Your task to perform on an android device: change the clock display to digital Image 0: 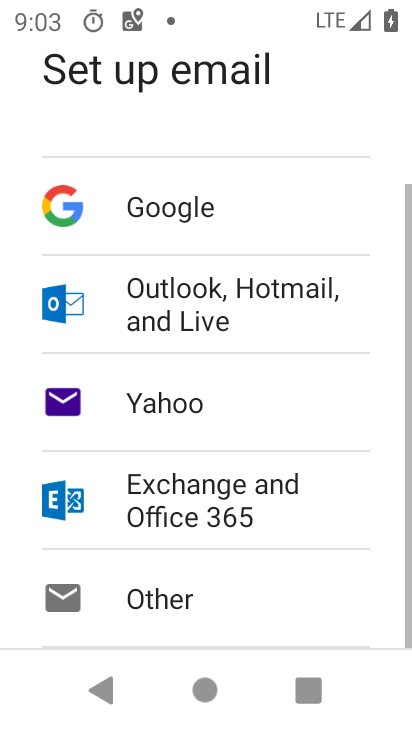
Step 0: drag from (164, 600) to (226, 246)
Your task to perform on an android device: change the clock display to digital Image 1: 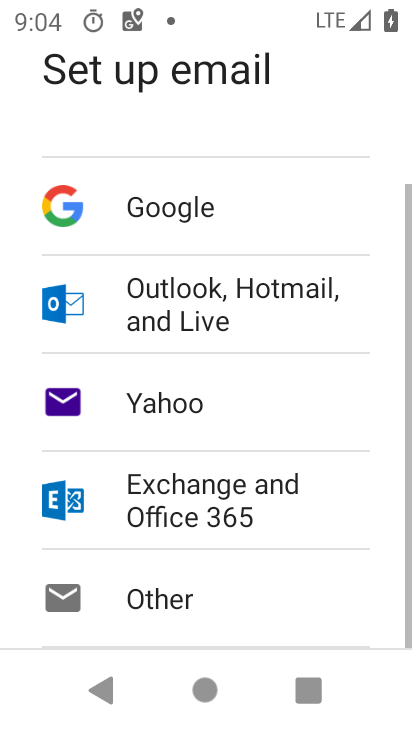
Step 1: drag from (205, 581) to (263, 269)
Your task to perform on an android device: change the clock display to digital Image 2: 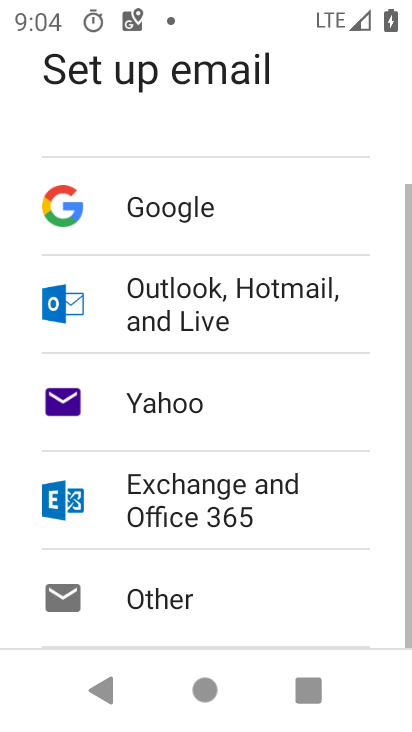
Step 2: drag from (203, 609) to (260, 457)
Your task to perform on an android device: change the clock display to digital Image 3: 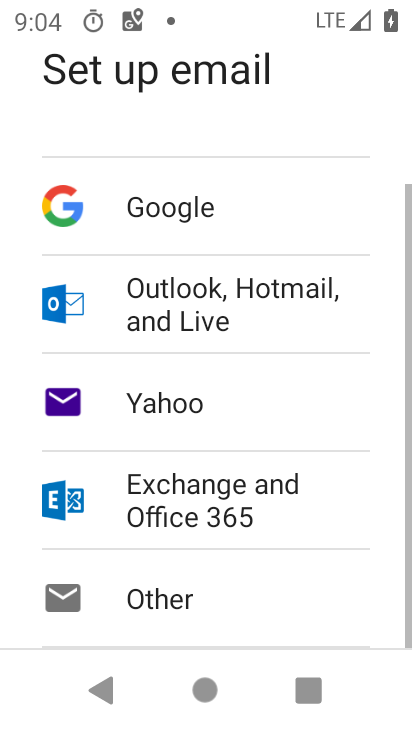
Step 3: press home button
Your task to perform on an android device: change the clock display to digital Image 4: 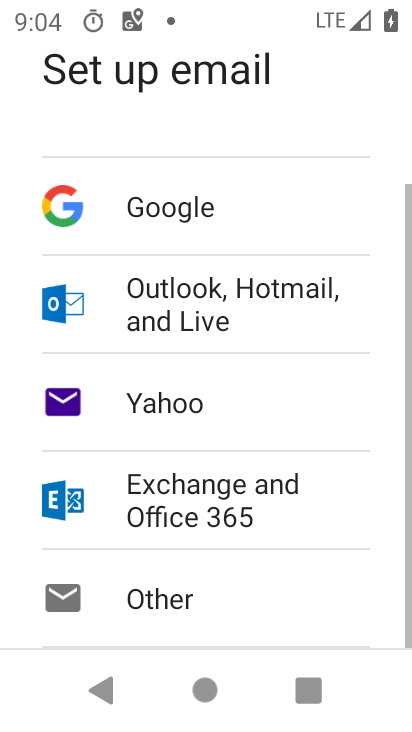
Step 4: press home button
Your task to perform on an android device: change the clock display to digital Image 5: 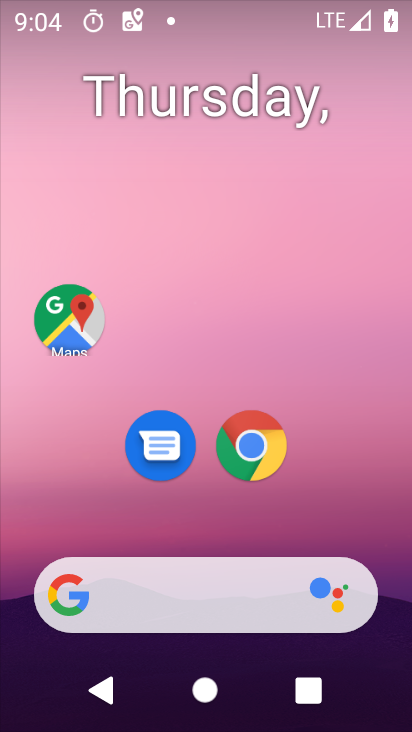
Step 5: drag from (231, 542) to (248, 188)
Your task to perform on an android device: change the clock display to digital Image 6: 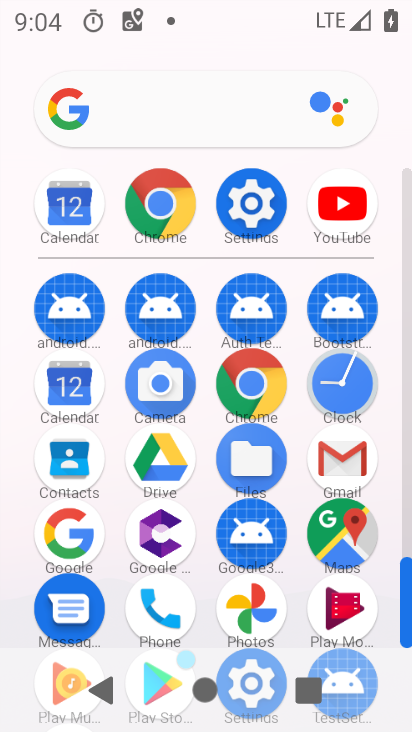
Step 6: drag from (201, 627) to (196, 242)
Your task to perform on an android device: change the clock display to digital Image 7: 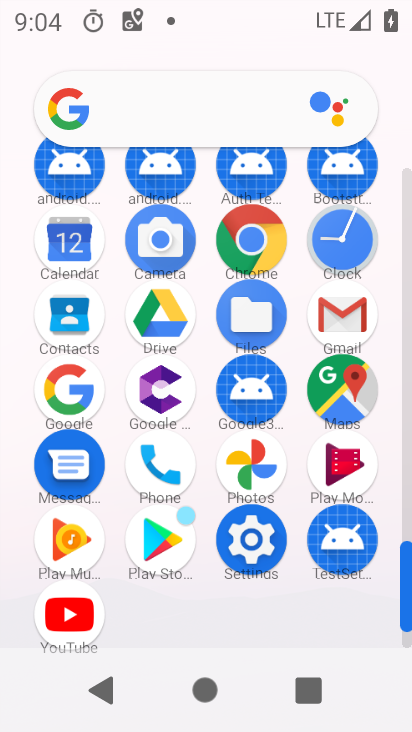
Step 7: click (336, 234)
Your task to perform on an android device: change the clock display to digital Image 8: 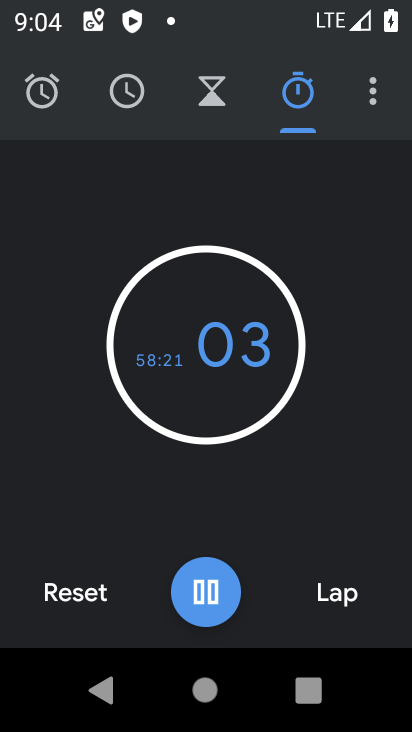
Step 8: click (376, 99)
Your task to perform on an android device: change the clock display to digital Image 9: 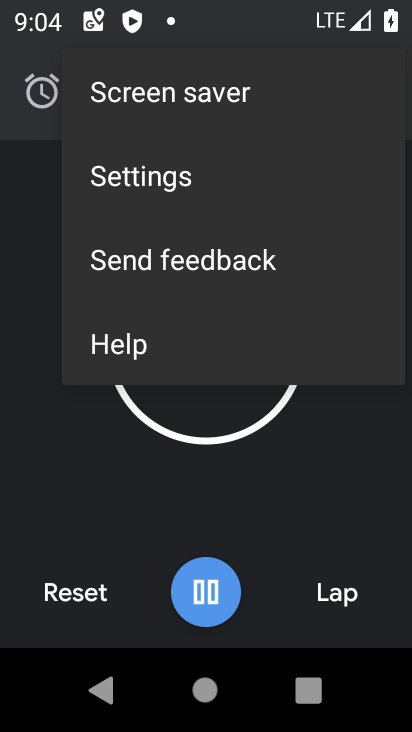
Step 9: click (201, 185)
Your task to perform on an android device: change the clock display to digital Image 10: 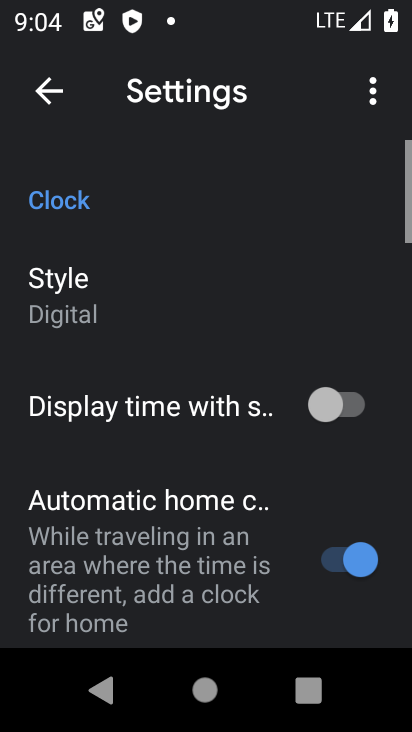
Step 10: click (86, 273)
Your task to perform on an android device: change the clock display to digital Image 11: 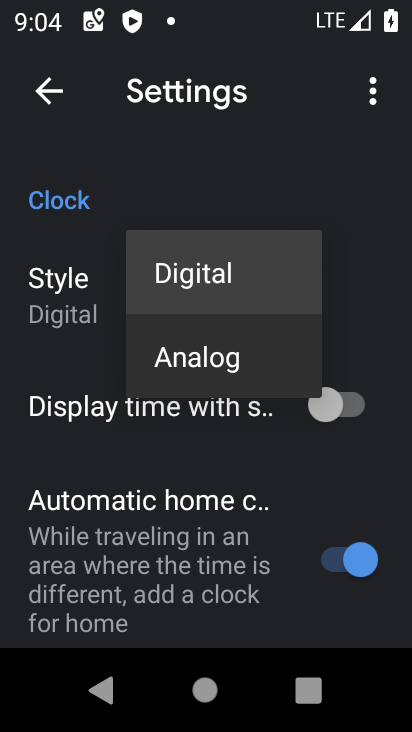
Step 11: click (167, 272)
Your task to perform on an android device: change the clock display to digital Image 12: 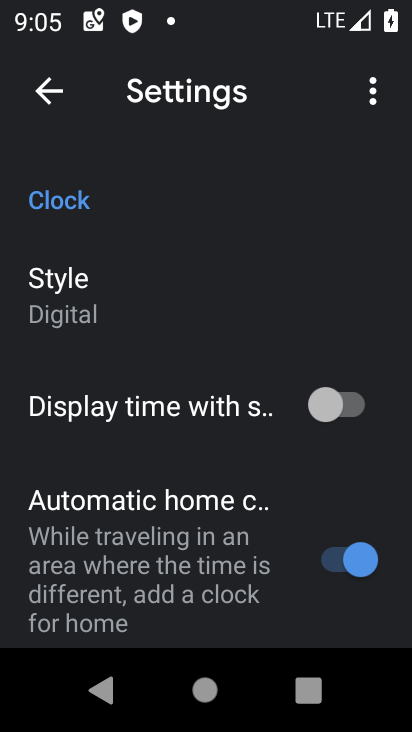
Step 12: drag from (234, 554) to (341, 78)
Your task to perform on an android device: change the clock display to digital Image 13: 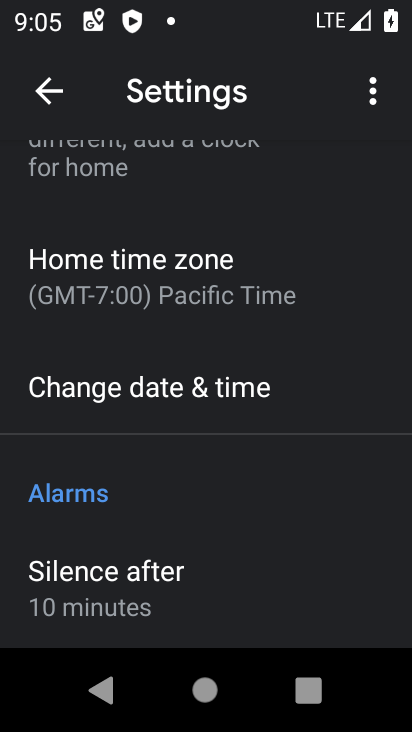
Step 13: drag from (204, 318) to (233, 636)
Your task to perform on an android device: change the clock display to digital Image 14: 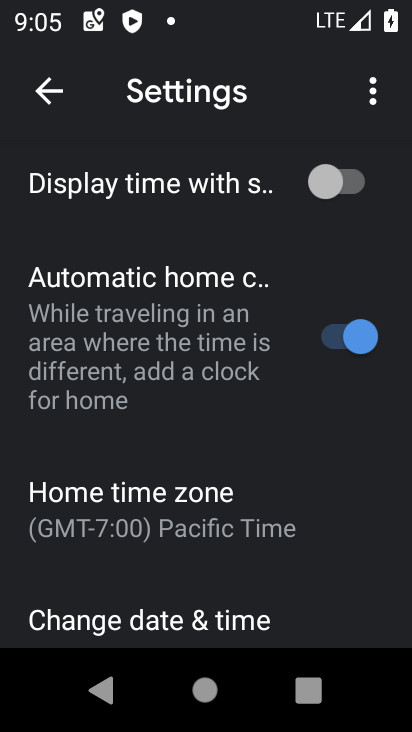
Step 14: drag from (227, 292) to (404, 667)
Your task to perform on an android device: change the clock display to digital Image 15: 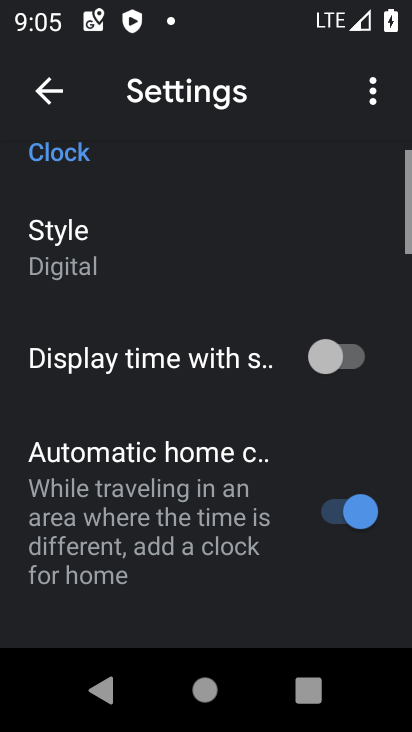
Step 15: drag from (188, 327) to (230, 615)
Your task to perform on an android device: change the clock display to digital Image 16: 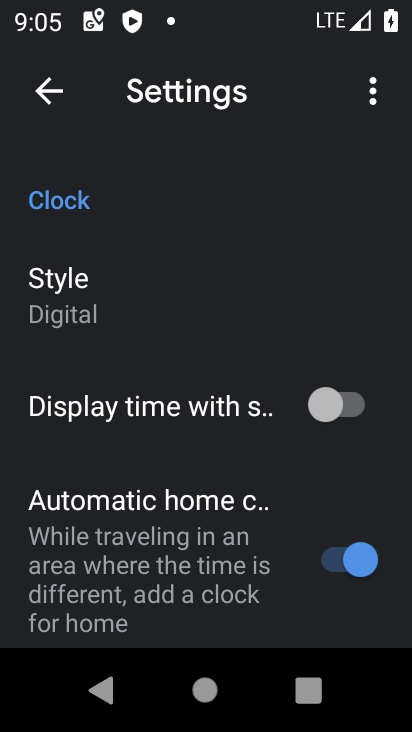
Step 16: drag from (206, 579) to (321, 210)
Your task to perform on an android device: change the clock display to digital Image 17: 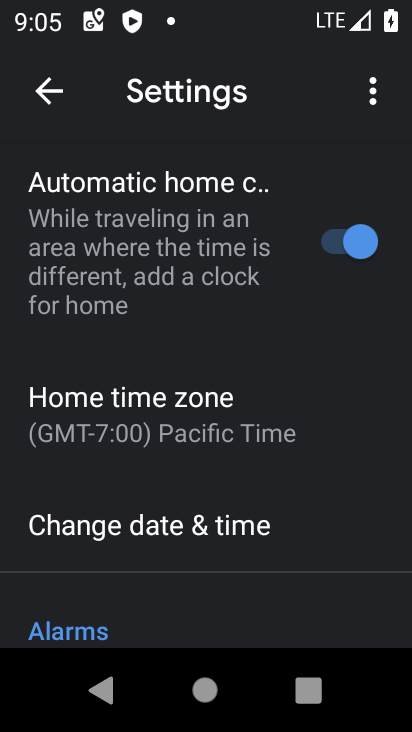
Step 17: drag from (193, 276) to (209, 513)
Your task to perform on an android device: change the clock display to digital Image 18: 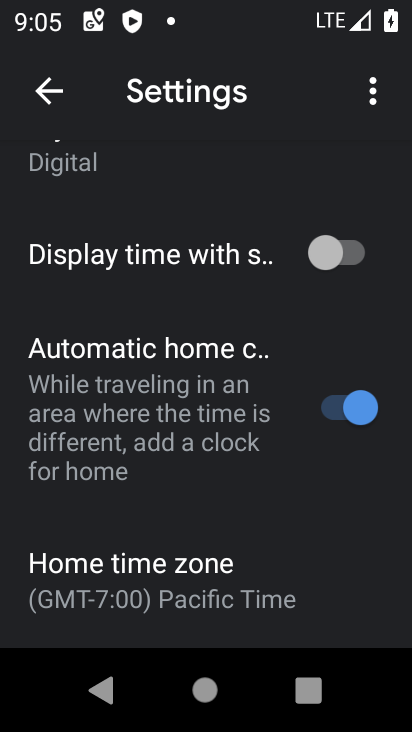
Step 18: drag from (195, 251) to (221, 542)
Your task to perform on an android device: change the clock display to digital Image 19: 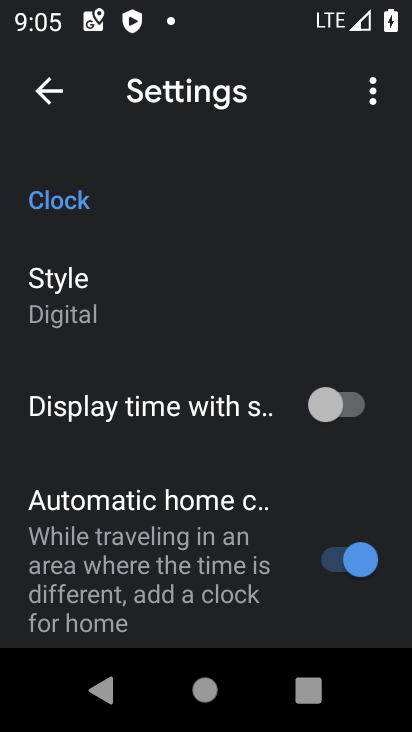
Step 19: drag from (223, 540) to (259, 289)
Your task to perform on an android device: change the clock display to digital Image 20: 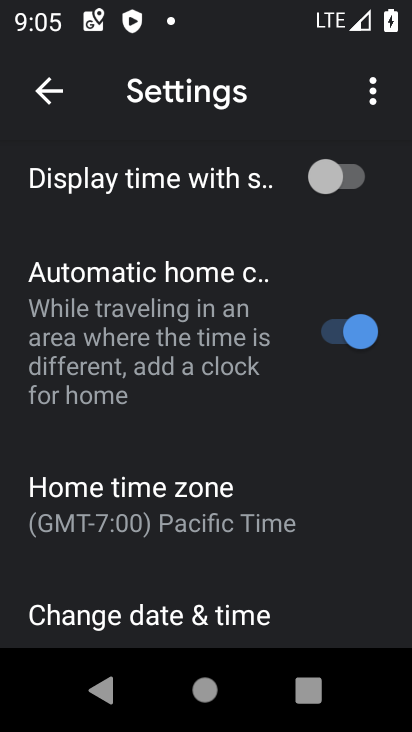
Step 20: drag from (255, 273) to (262, 543)
Your task to perform on an android device: change the clock display to digital Image 21: 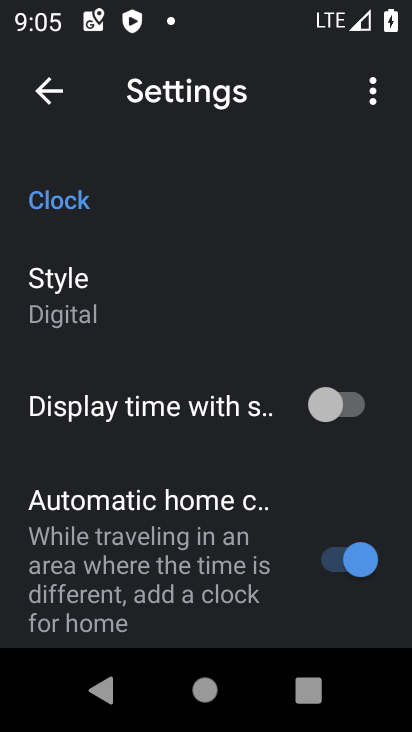
Step 21: drag from (230, 332) to (263, 633)
Your task to perform on an android device: change the clock display to digital Image 22: 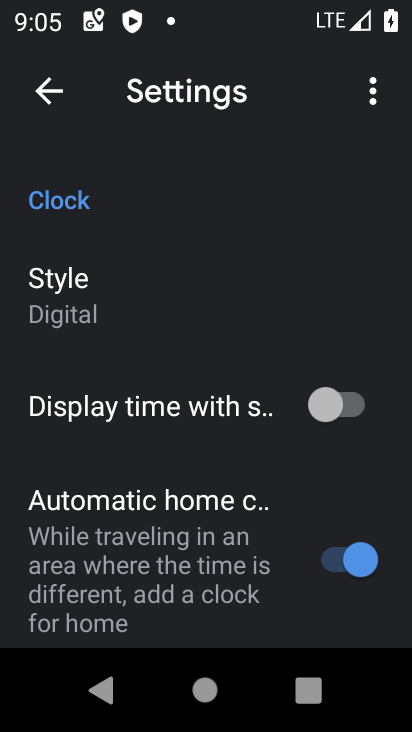
Step 22: click (97, 311)
Your task to perform on an android device: change the clock display to digital Image 23: 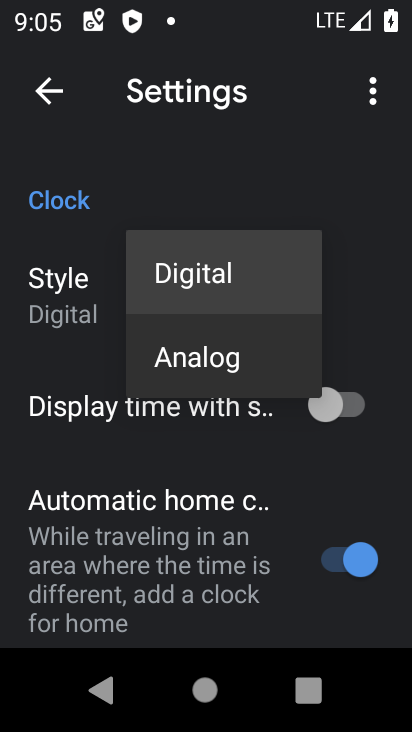
Step 23: click (248, 287)
Your task to perform on an android device: change the clock display to digital Image 24: 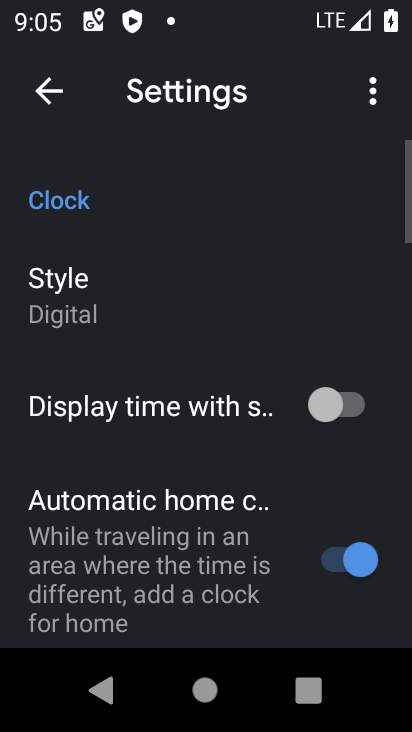
Step 24: task complete